Your task to perform on an android device: Is it going to rain today? Image 0: 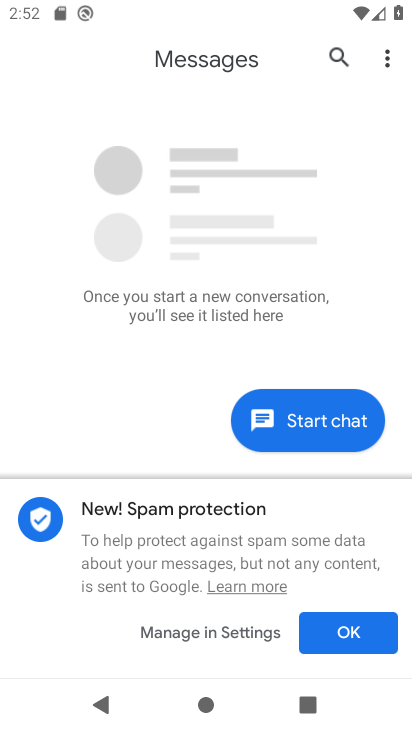
Step 0: press home button
Your task to perform on an android device: Is it going to rain today? Image 1: 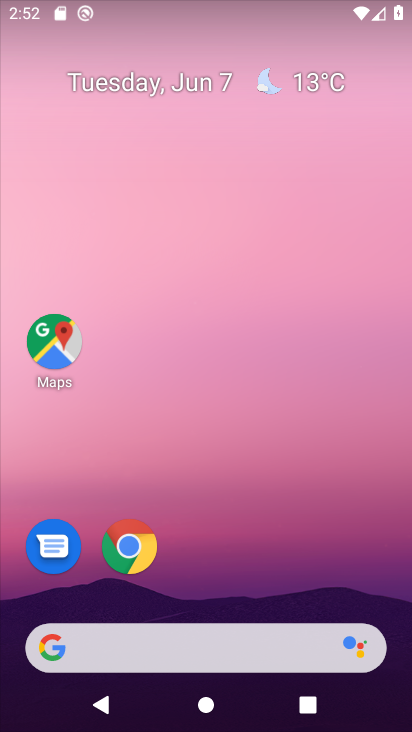
Step 1: drag from (299, 573) to (312, 269)
Your task to perform on an android device: Is it going to rain today? Image 2: 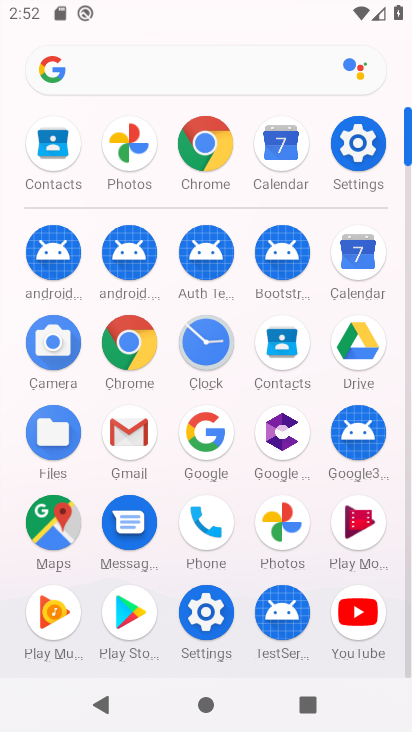
Step 2: click (180, 70)
Your task to perform on an android device: Is it going to rain today? Image 3: 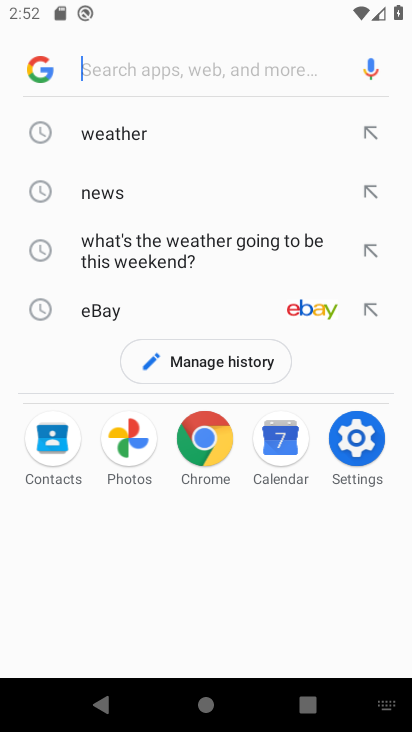
Step 3: click (138, 138)
Your task to perform on an android device: Is it going to rain today? Image 4: 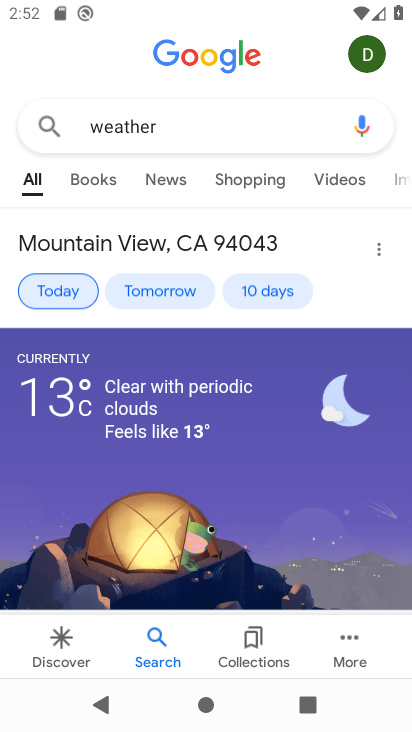
Step 4: task complete